Your task to perform on an android device: toggle location history Image 0: 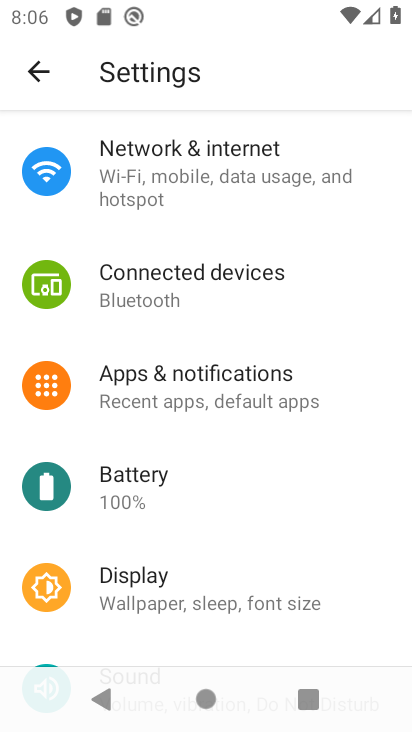
Step 0: press home button
Your task to perform on an android device: toggle location history Image 1: 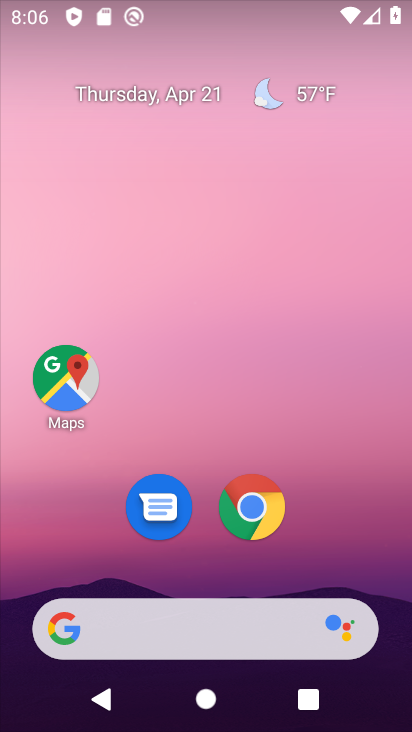
Step 1: click (55, 382)
Your task to perform on an android device: toggle location history Image 2: 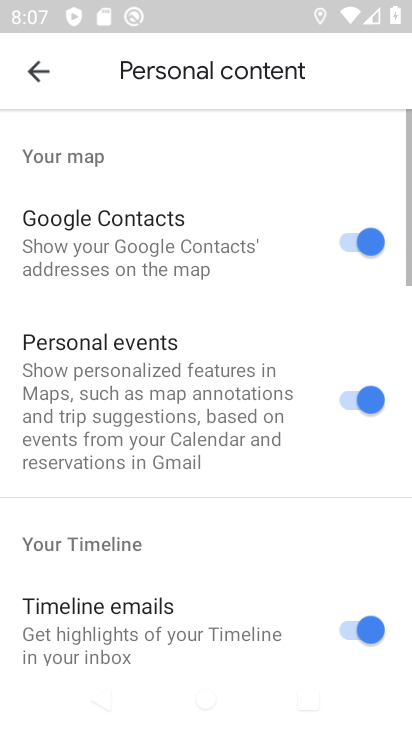
Step 2: click (39, 82)
Your task to perform on an android device: toggle location history Image 3: 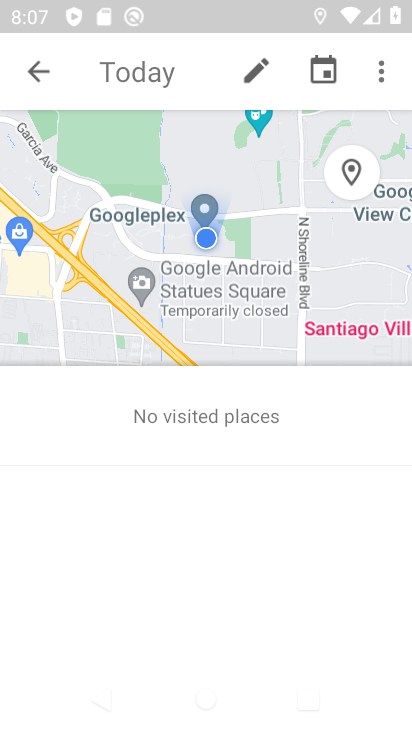
Step 3: click (39, 82)
Your task to perform on an android device: toggle location history Image 4: 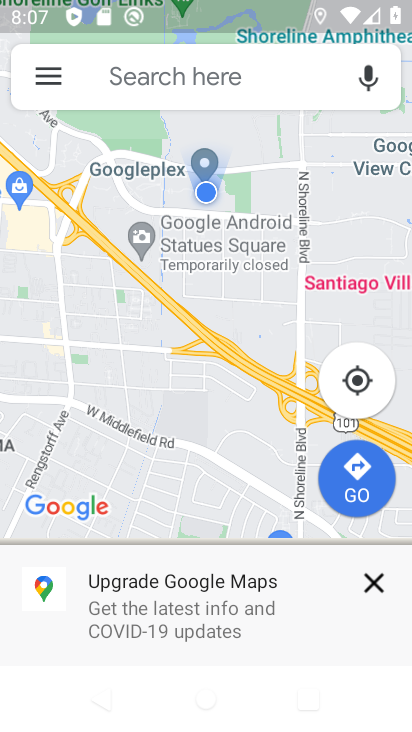
Step 4: click (64, 81)
Your task to perform on an android device: toggle location history Image 5: 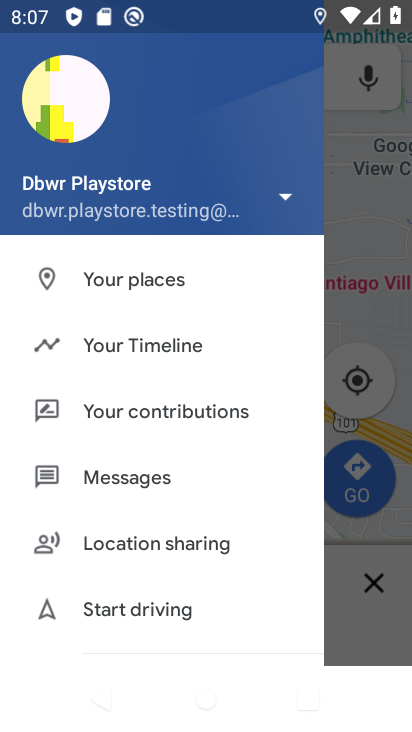
Step 5: click (153, 356)
Your task to perform on an android device: toggle location history Image 6: 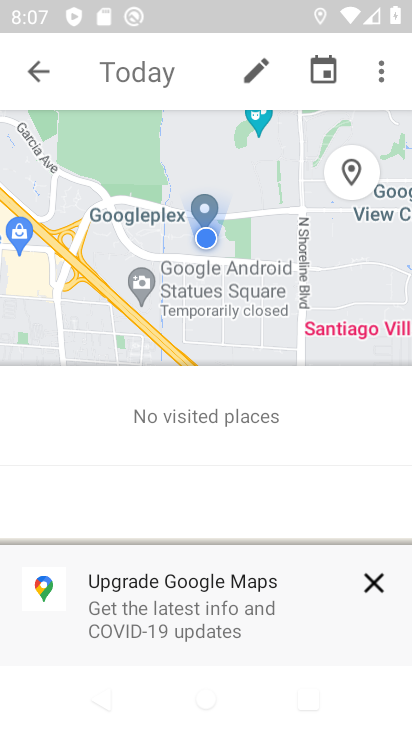
Step 6: click (378, 63)
Your task to perform on an android device: toggle location history Image 7: 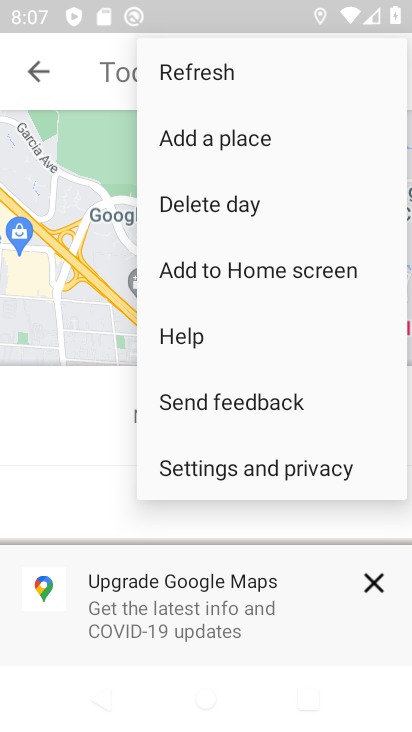
Step 7: click (286, 455)
Your task to perform on an android device: toggle location history Image 8: 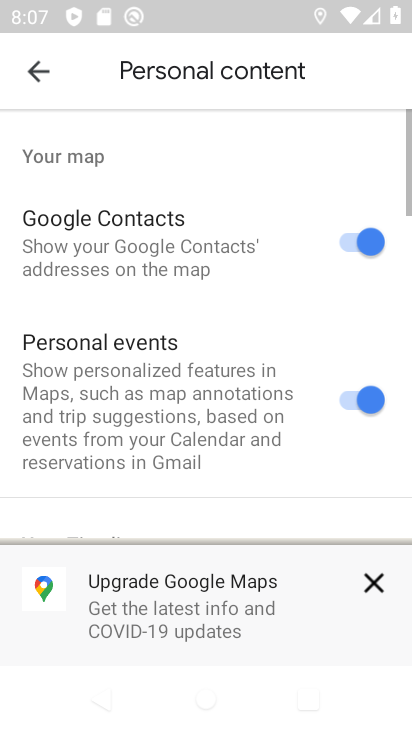
Step 8: drag from (277, 455) to (286, 106)
Your task to perform on an android device: toggle location history Image 9: 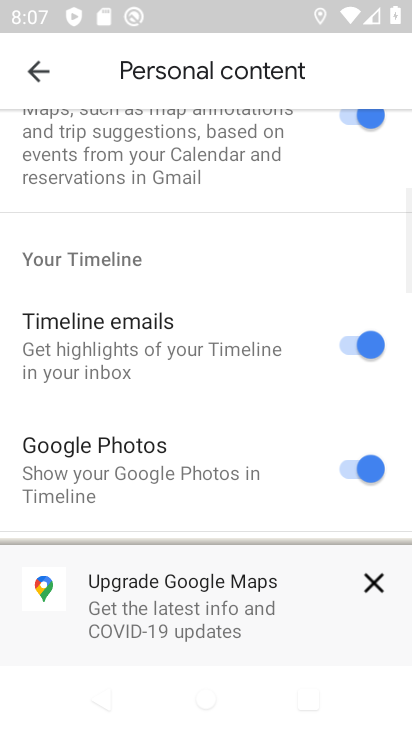
Step 9: drag from (267, 326) to (283, 164)
Your task to perform on an android device: toggle location history Image 10: 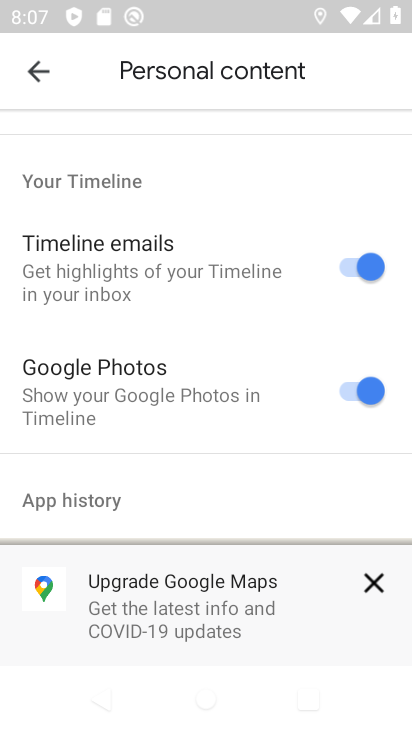
Step 10: drag from (122, 476) to (118, 86)
Your task to perform on an android device: toggle location history Image 11: 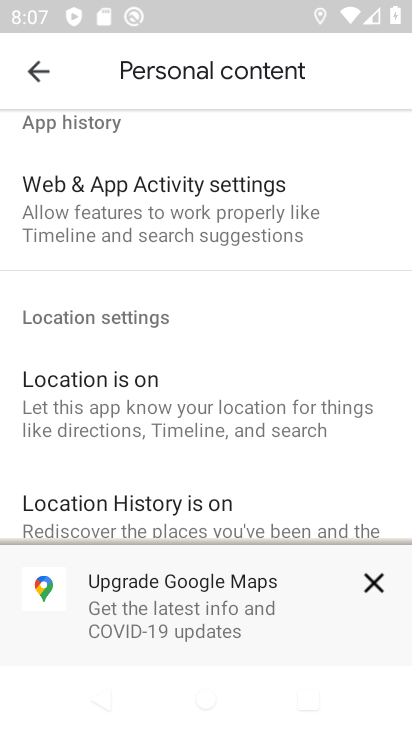
Step 11: drag from (136, 443) to (116, 169)
Your task to perform on an android device: toggle location history Image 12: 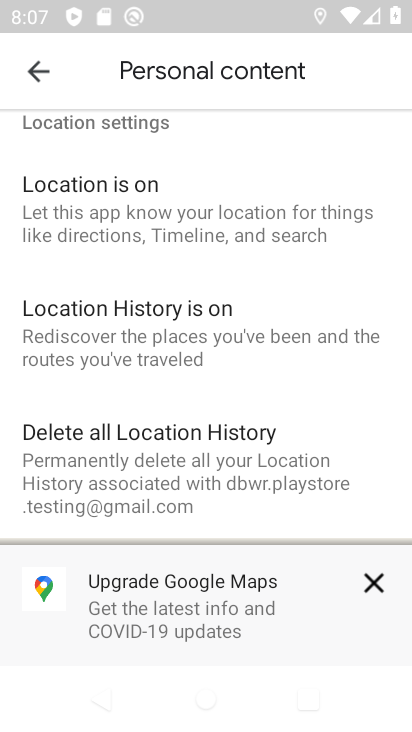
Step 12: click (164, 338)
Your task to perform on an android device: toggle location history Image 13: 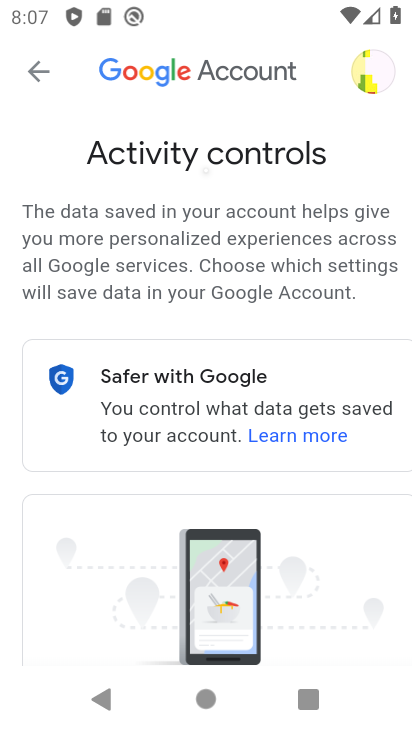
Step 13: drag from (293, 599) to (100, 178)
Your task to perform on an android device: toggle location history Image 14: 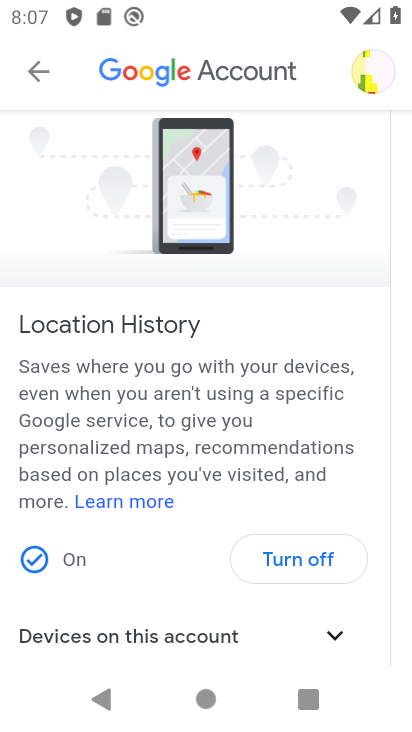
Step 14: click (297, 552)
Your task to perform on an android device: toggle location history Image 15: 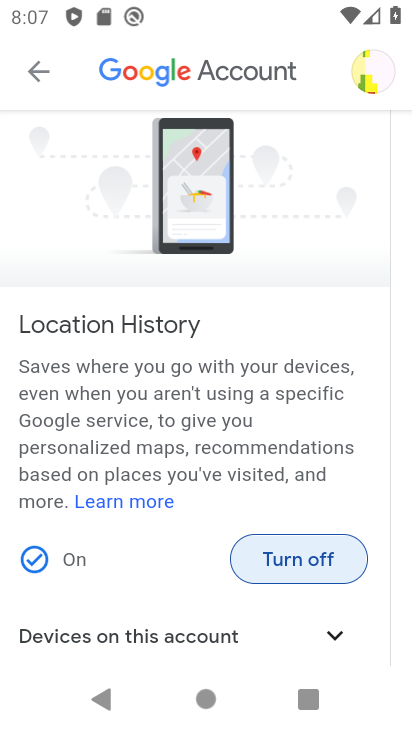
Step 15: click (297, 552)
Your task to perform on an android device: toggle location history Image 16: 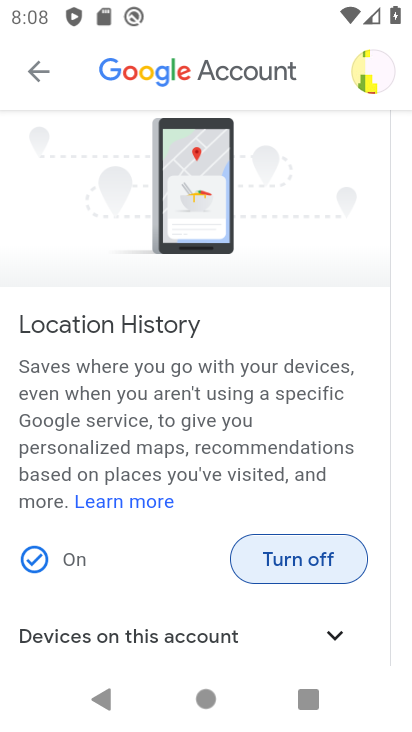
Step 16: click (268, 574)
Your task to perform on an android device: toggle location history Image 17: 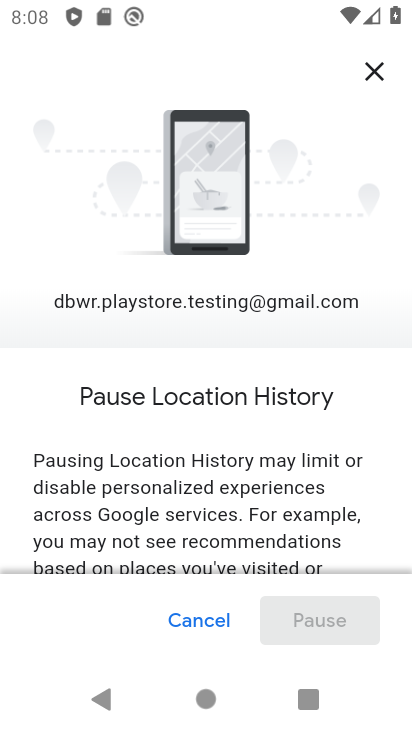
Step 17: drag from (265, 559) to (205, 85)
Your task to perform on an android device: toggle location history Image 18: 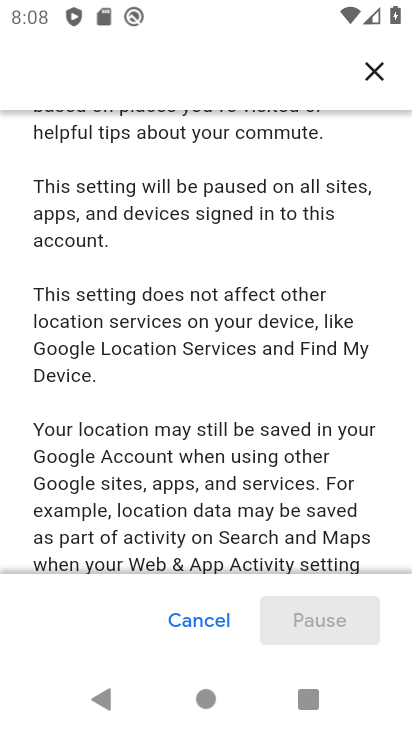
Step 18: drag from (293, 471) to (215, 157)
Your task to perform on an android device: toggle location history Image 19: 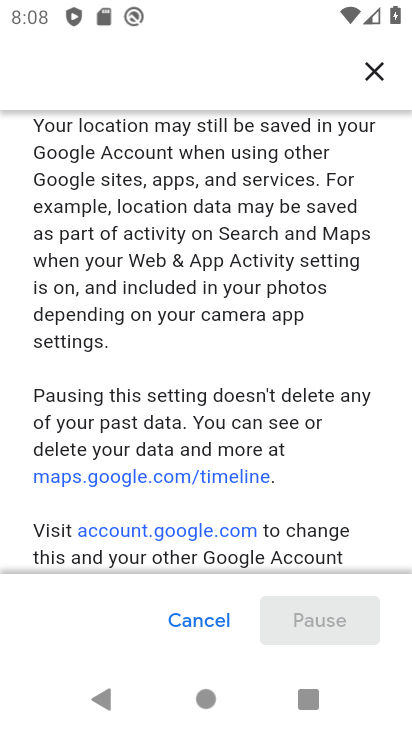
Step 19: drag from (284, 505) to (241, 166)
Your task to perform on an android device: toggle location history Image 20: 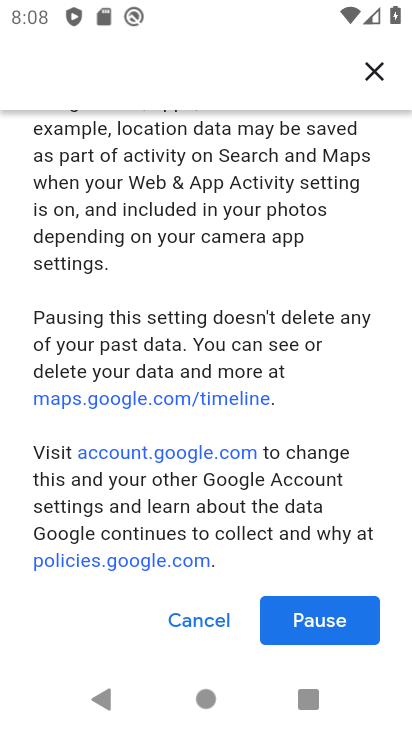
Step 20: click (334, 614)
Your task to perform on an android device: toggle location history Image 21: 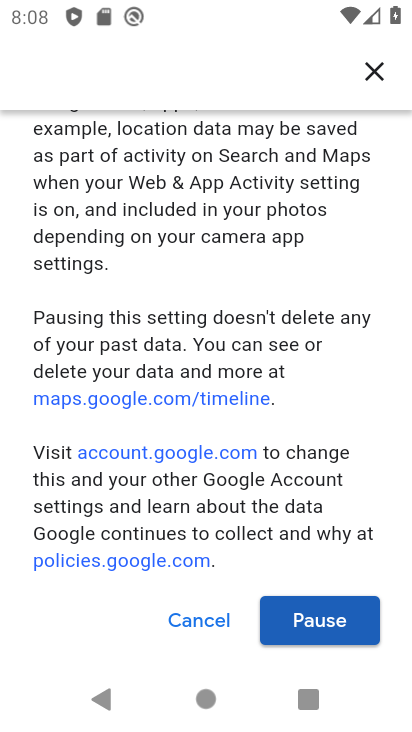
Step 21: click (332, 626)
Your task to perform on an android device: toggle location history Image 22: 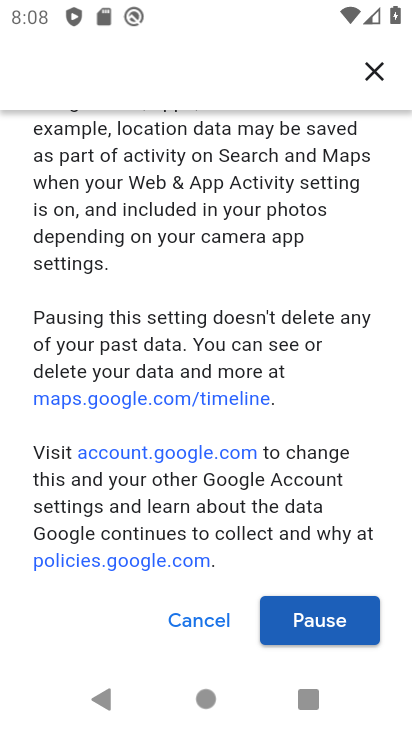
Step 22: click (332, 626)
Your task to perform on an android device: toggle location history Image 23: 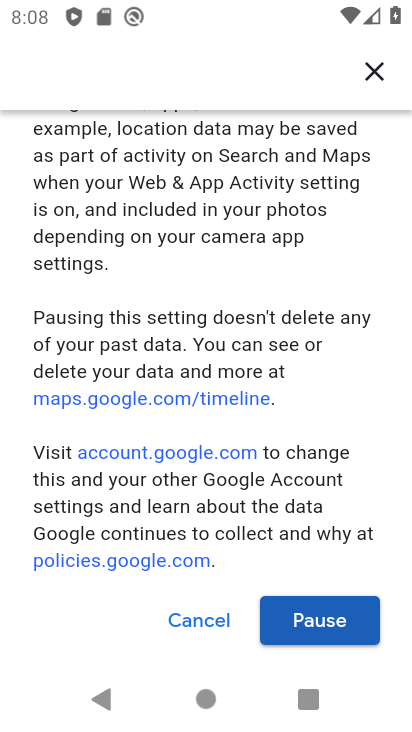
Step 23: click (332, 626)
Your task to perform on an android device: toggle location history Image 24: 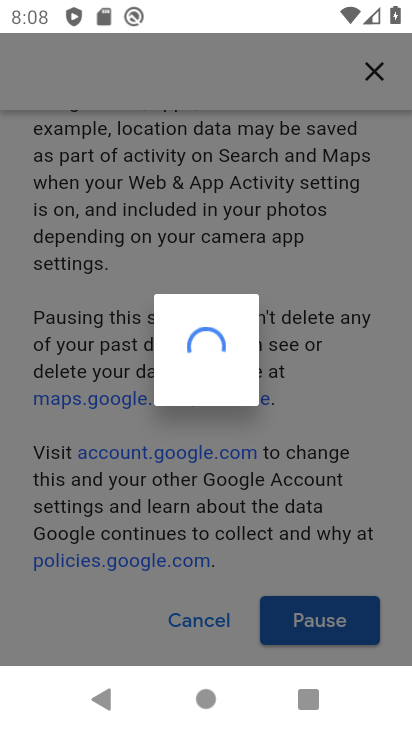
Step 24: click (332, 626)
Your task to perform on an android device: toggle location history Image 25: 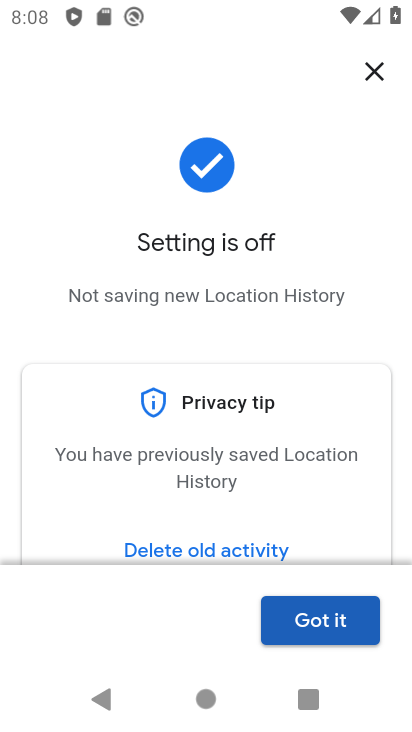
Step 25: click (307, 611)
Your task to perform on an android device: toggle location history Image 26: 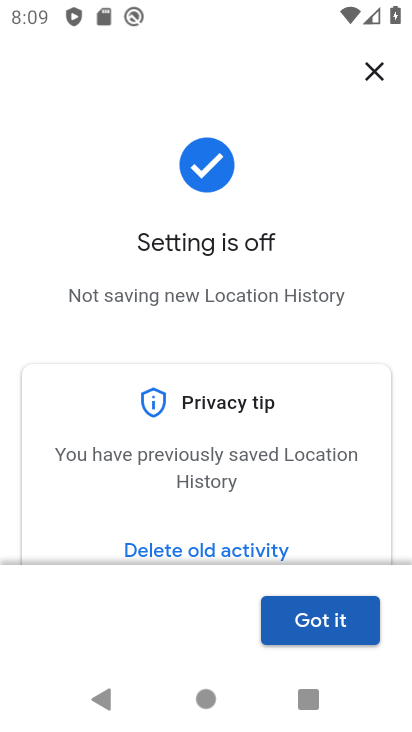
Step 26: click (330, 630)
Your task to perform on an android device: toggle location history Image 27: 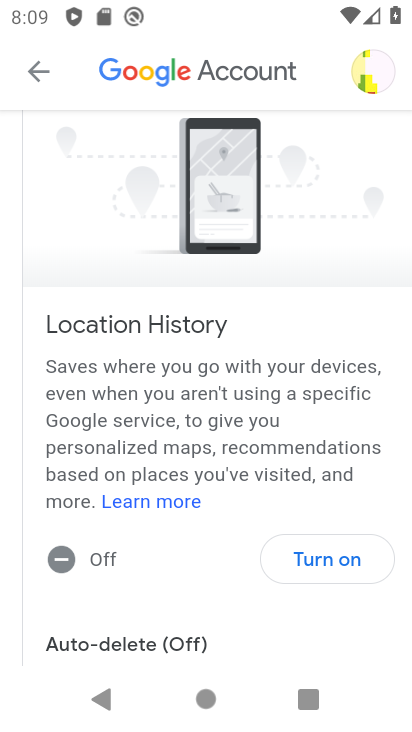
Step 27: task complete